Your task to perform on an android device: create a new album in the google photos Image 0: 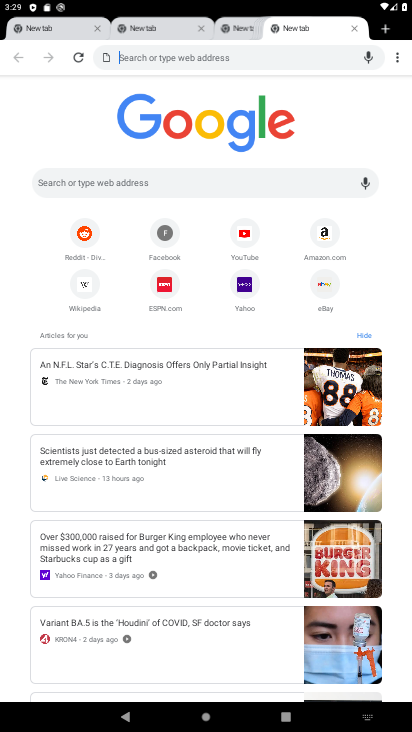
Step 0: press home button
Your task to perform on an android device: create a new album in the google photos Image 1: 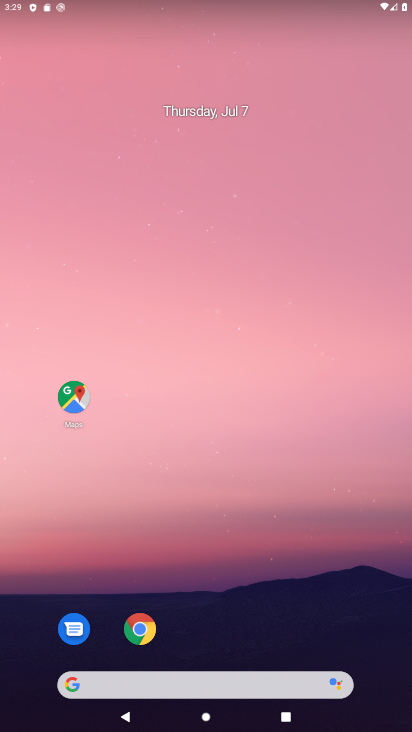
Step 1: drag from (90, 539) to (240, 24)
Your task to perform on an android device: create a new album in the google photos Image 2: 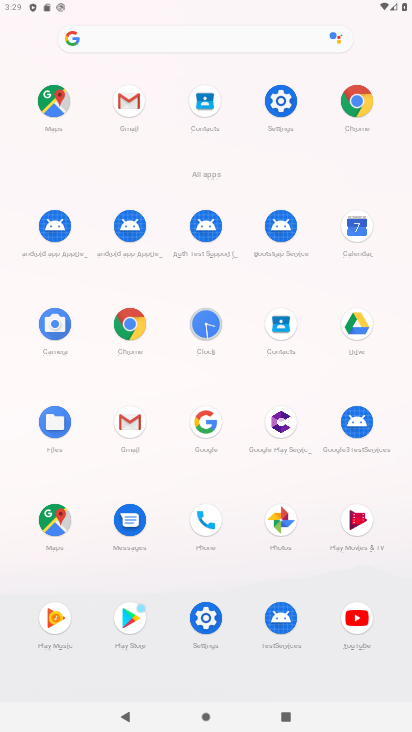
Step 2: click (284, 530)
Your task to perform on an android device: create a new album in the google photos Image 3: 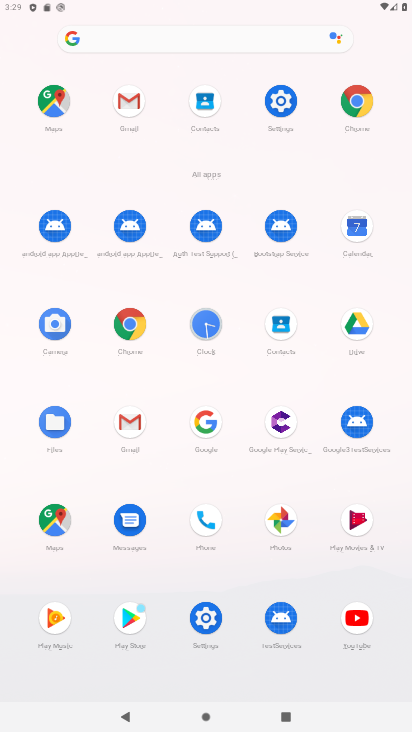
Step 3: click (284, 530)
Your task to perform on an android device: create a new album in the google photos Image 4: 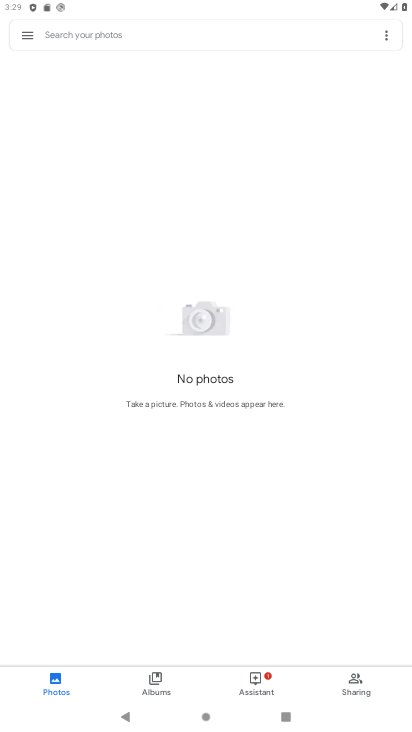
Step 4: click (138, 688)
Your task to perform on an android device: create a new album in the google photos Image 5: 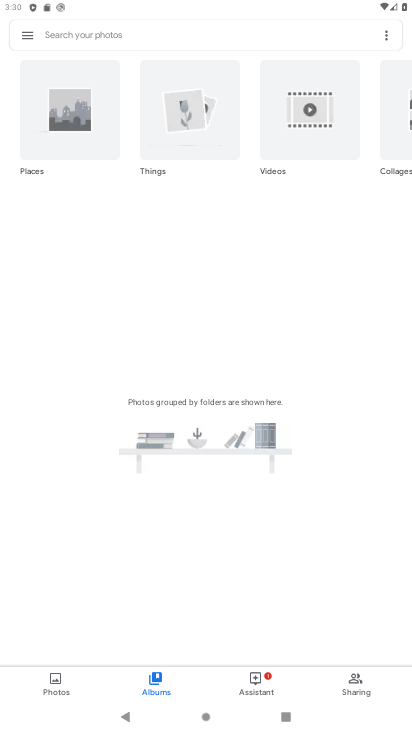
Step 5: click (22, 23)
Your task to perform on an android device: create a new album in the google photos Image 6: 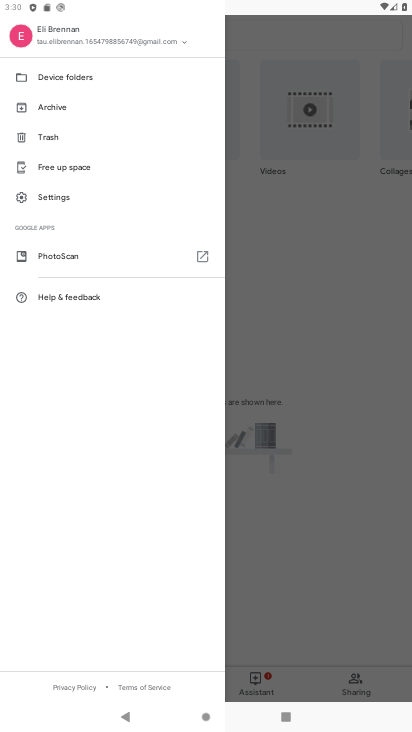
Step 6: click (259, 201)
Your task to perform on an android device: create a new album in the google photos Image 7: 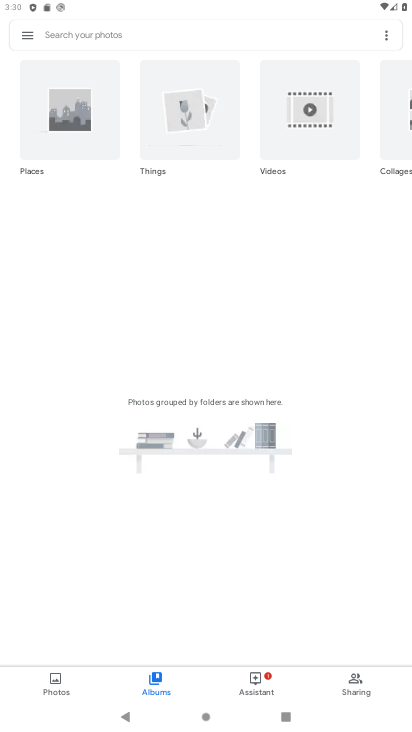
Step 7: click (378, 34)
Your task to perform on an android device: create a new album in the google photos Image 8: 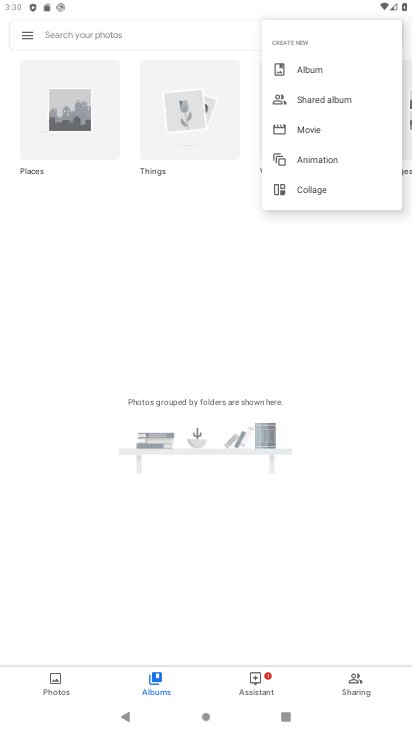
Step 8: click (320, 65)
Your task to perform on an android device: create a new album in the google photos Image 9: 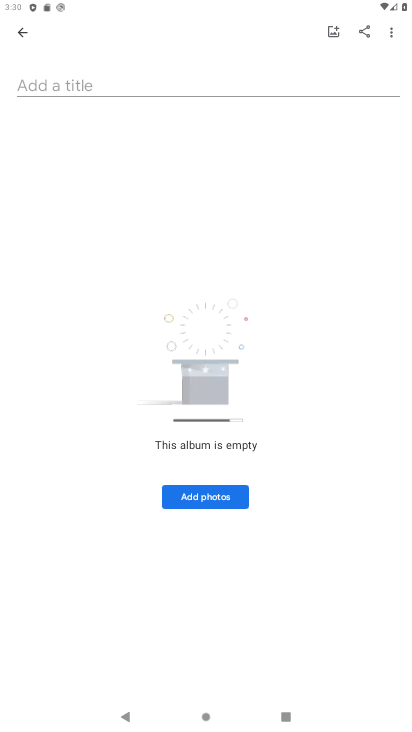
Step 9: click (203, 498)
Your task to perform on an android device: create a new album in the google photos Image 10: 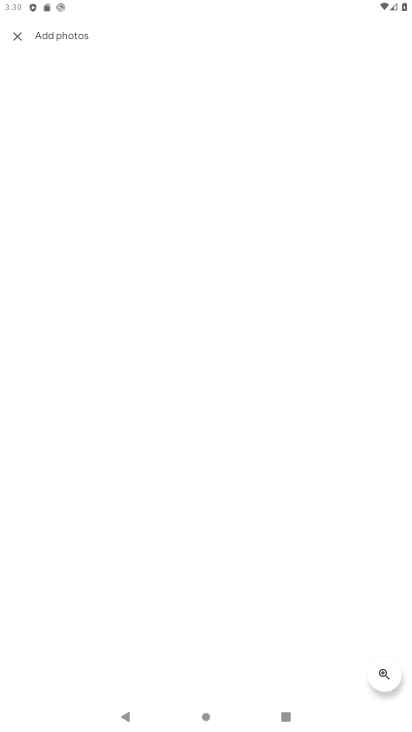
Step 10: task complete